Your task to perform on an android device: find which apps use the phone's location Image 0: 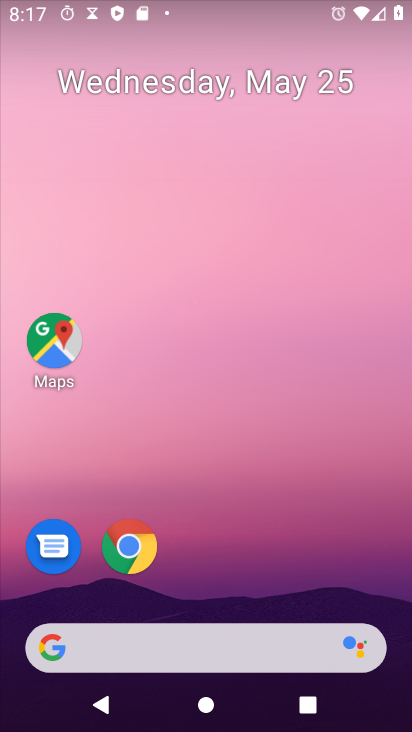
Step 0: drag from (185, 595) to (157, 11)
Your task to perform on an android device: find which apps use the phone's location Image 1: 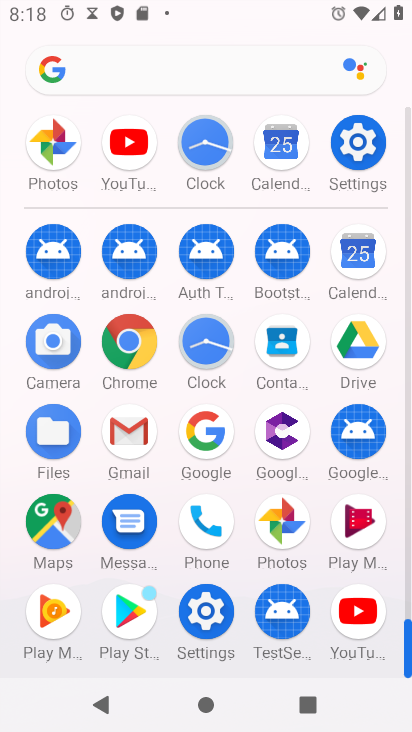
Step 1: click (198, 603)
Your task to perform on an android device: find which apps use the phone's location Image 2: 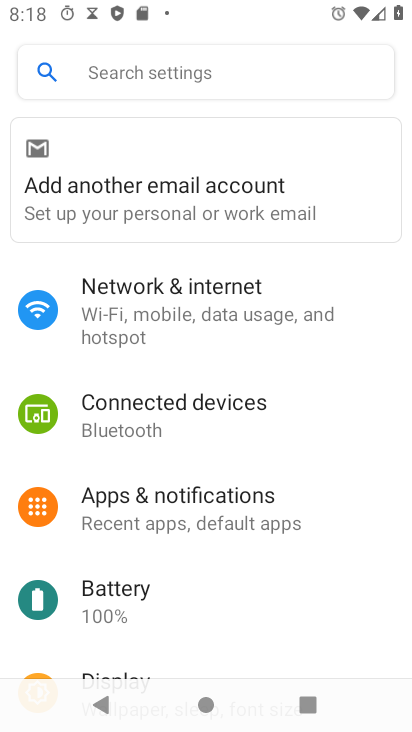
Step 2: drag from (200, 597) to (9, 719)
Your task to perform on an android device: find which apps use the phone's location Image 3: 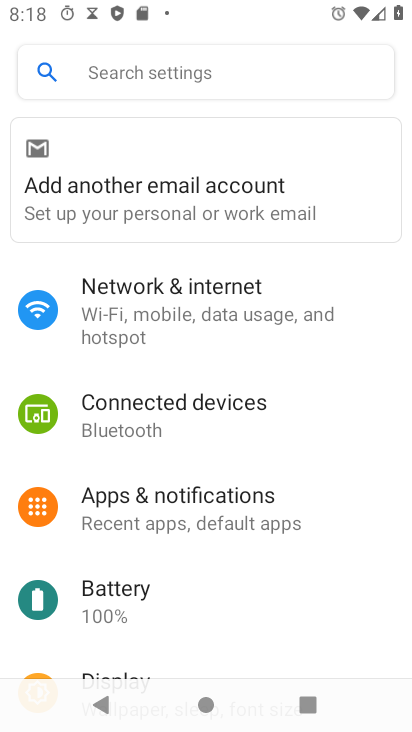
Step 3: drag from (144, 575) to (216, 99)
Your task to perform on an android device: find which apps use the phone's location Image 4: 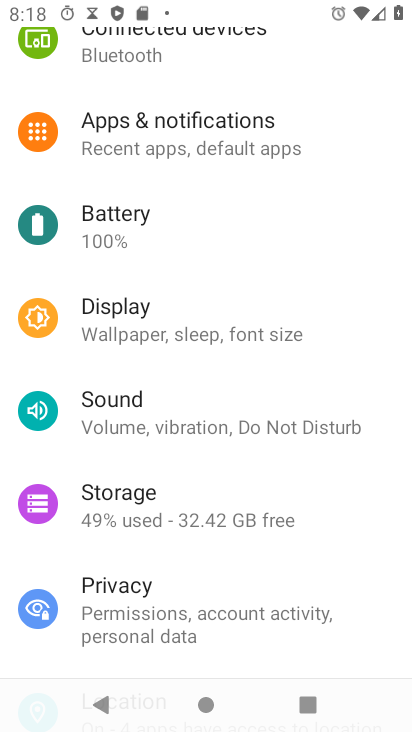
Step 4: drag from (155, 541) to (210, 45)
Your task to perform on an android device: find which apps use the phone's location Image 5: 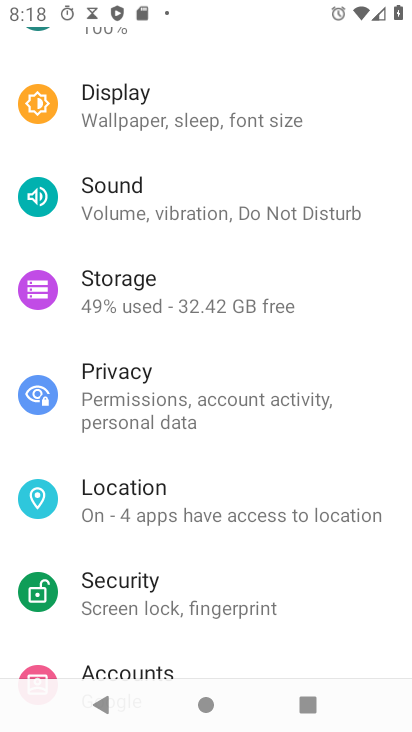
Step 5: click (210, 486)
Your task to perform on an android device: find which apps use the phone's location Image 6: 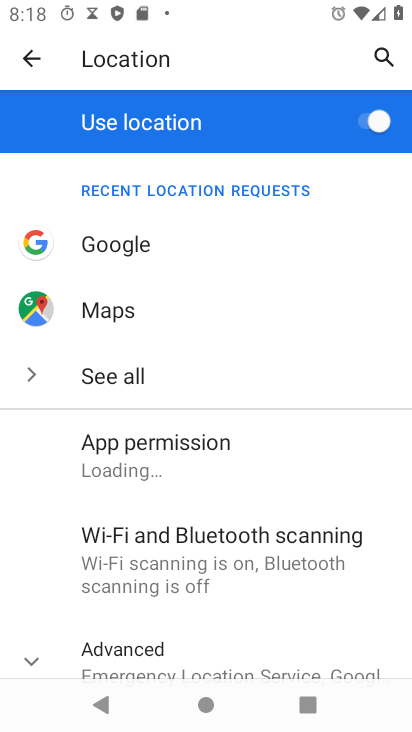
Step 6: click (175, 450)
Your task to perform on an android device: find which apps use the phone's location Image 7: 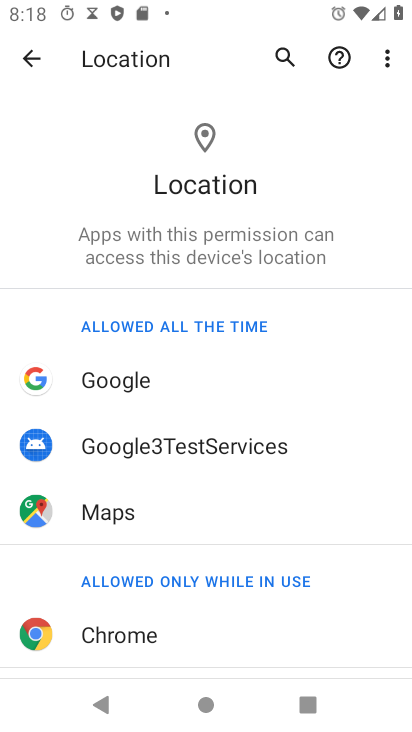
Step 7: task complete